Your task to perform on an android device: turn off airplane mode Image 0: 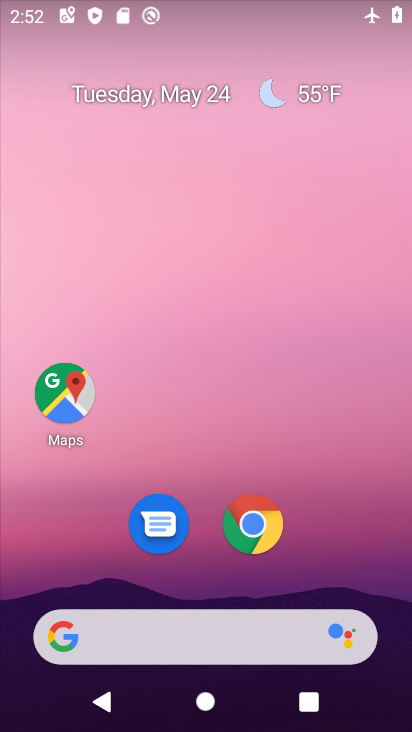
Step 0: drag from (308, 498) to (361, 42)
Your task to perform on an android device: turn off airplane mode Image 1: 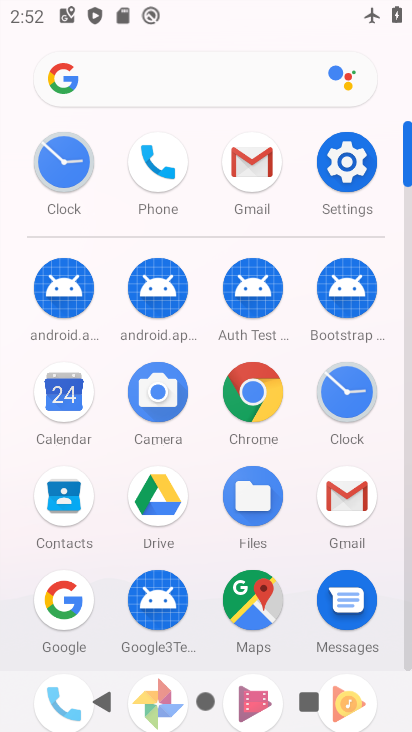
Step 1: click (338, 160)
Your task to perform on an android device: turn off airplane mode Image 2: 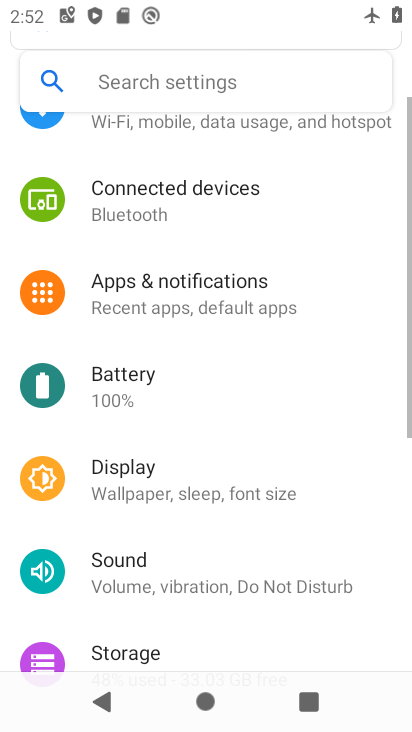
Step 2: drag from (279, 264) to (231, 571)
Your task to perform on an android device: turn off airplane mode Image 3: 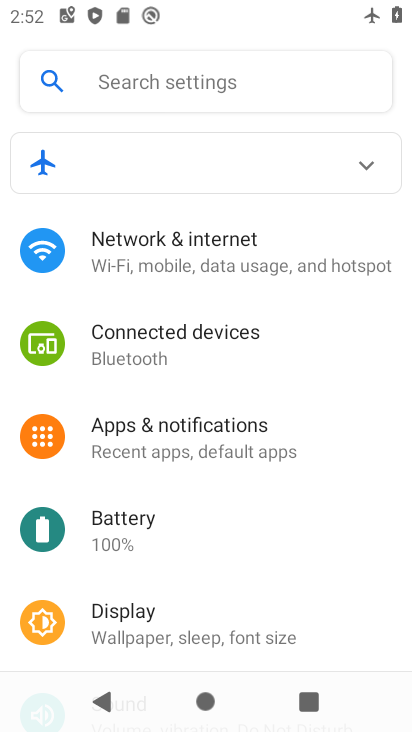
Step 3: click (244, 258)
Your task to perform on an android device: turn off airplane mode Image 4: 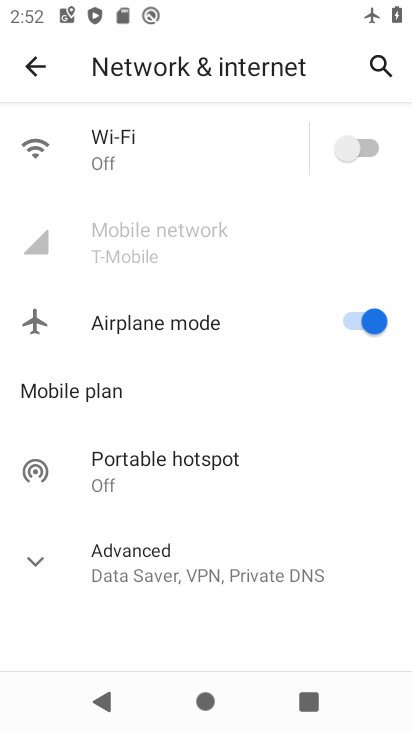
Step 4: click (355, 314)
Your task to perform on an android device: turn off airplane mode Image 5: 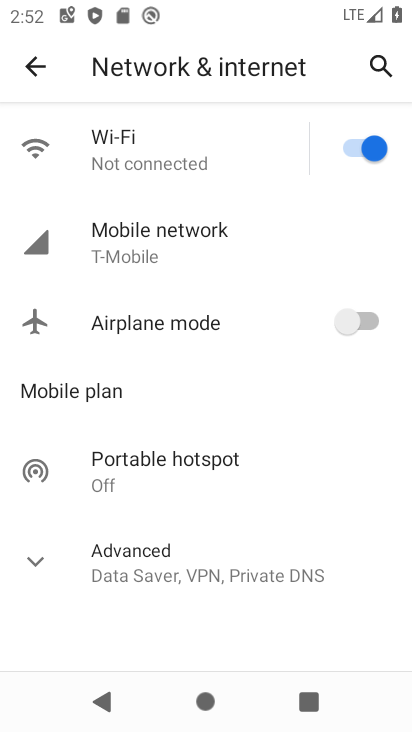
Step 5: task complete